Your task to perform on an android device: toggle priority inbox in the gmail app Image 0: 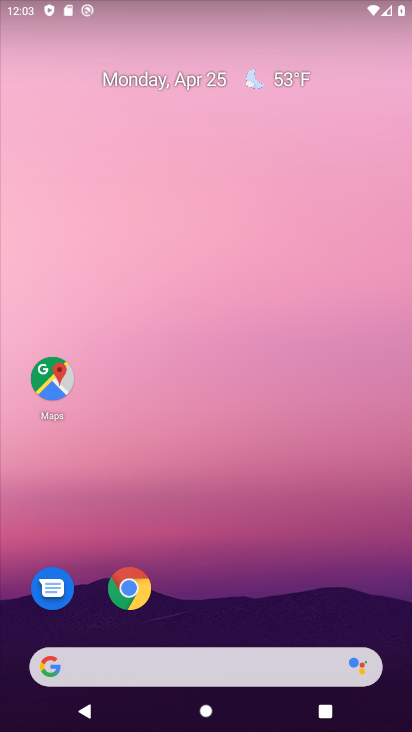
Step 0: drag from (209, 632) to (219, 161)
Your task to perform on an android device: toggle priority inbox in the gmail app Image 1: 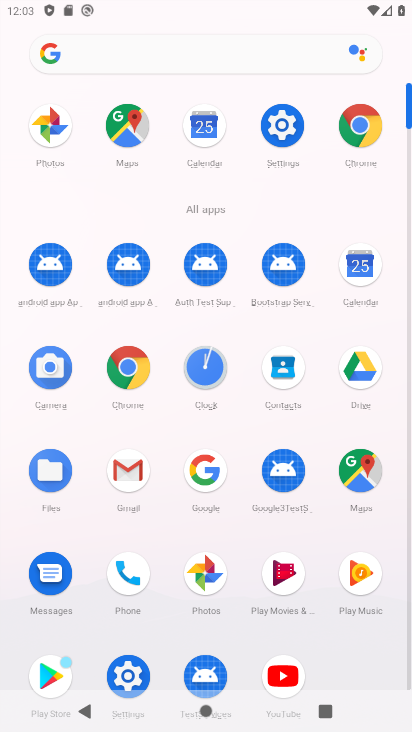
Step 1: click (124, 471)
Your task to perform on an android device: toggle priority inbox in the gmail app Image 2: 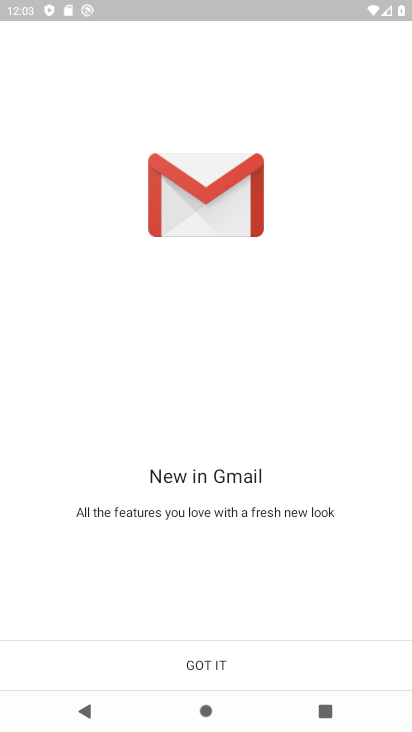
Step 2: click (194, 669)
Your task to perform on an android device: toggle priority inbox in the gmail app Image 3: 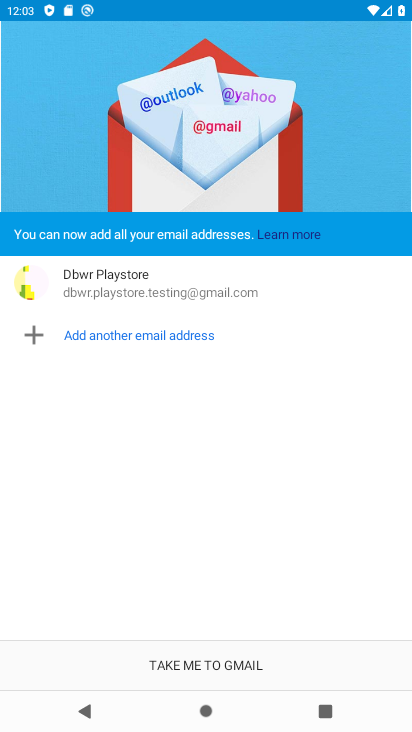
Step 3: click (194, 669)
Your task to perform on an android device: toggle priority inbox in the gmail app Image 4: 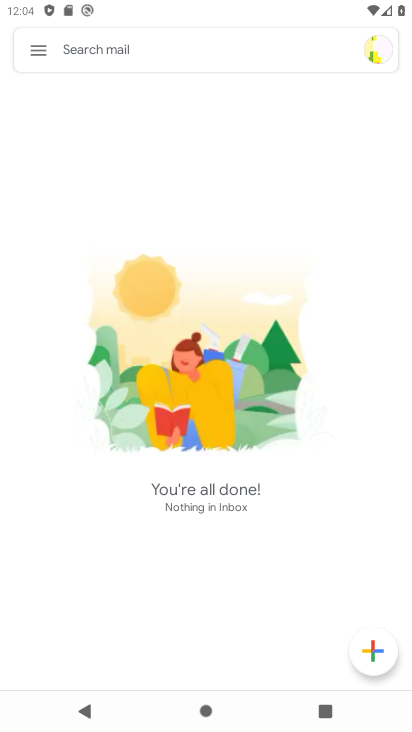
Step 4: click (41, 53)
Your task to perform on an android device: toggle priority inbox in the gmail app Image 5: 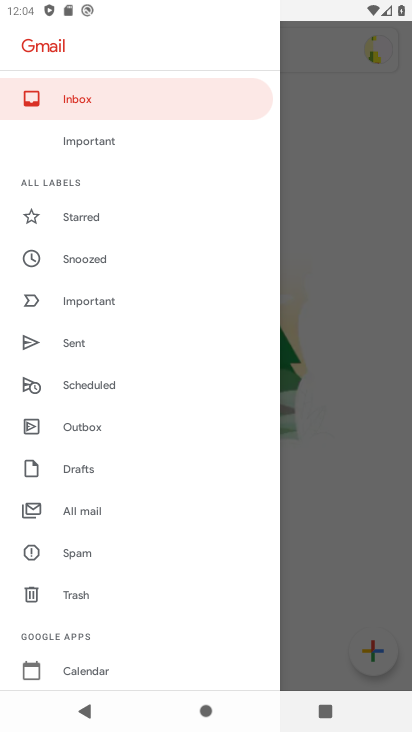
Step 5: drag from (139, 665) to (114, 267)
Your task to perform on an android device: toggle priority inbox in the gmail app Image 6: 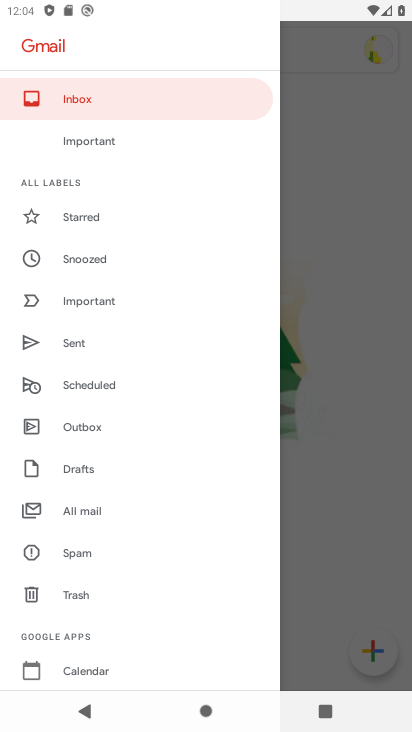
Step 6: drag from (233, 652) to (212, 323)
Your task to perform on an android device: toggle priority inbox in the gmail app Image 7: 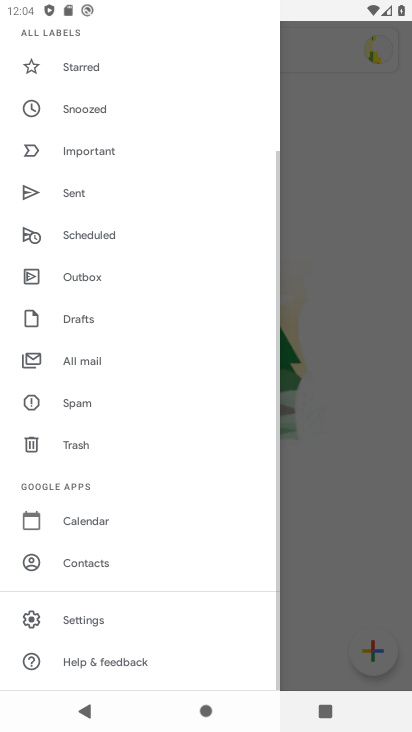
Step 7: click (194, 611)
Your task to perform on an android device: toggle priority inbox in the gmail app Image 8: 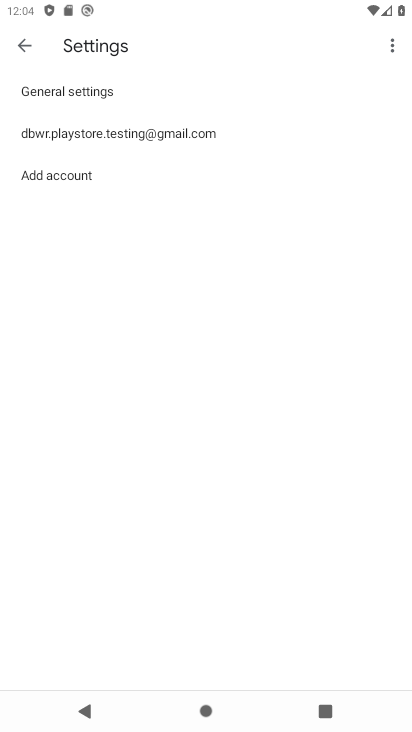
Step 8: click (272, 123)
Your task to perform on an android device: toggle priority inbox in the gmail app Image 9: 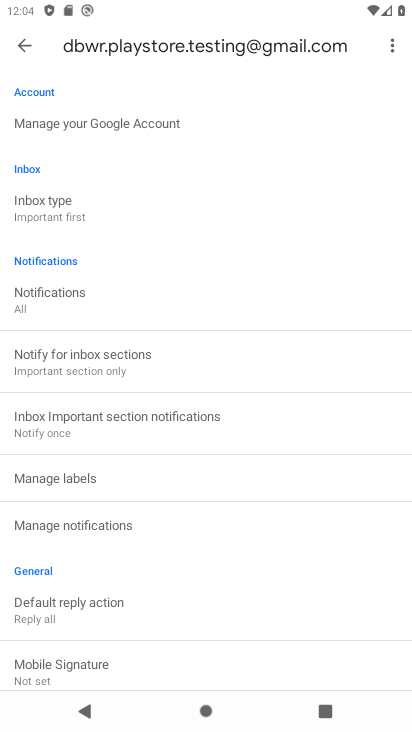
Step 9: click (257, 210)
Your task to perform on an android device: toggle priority inbox in the gmail app Image 10: 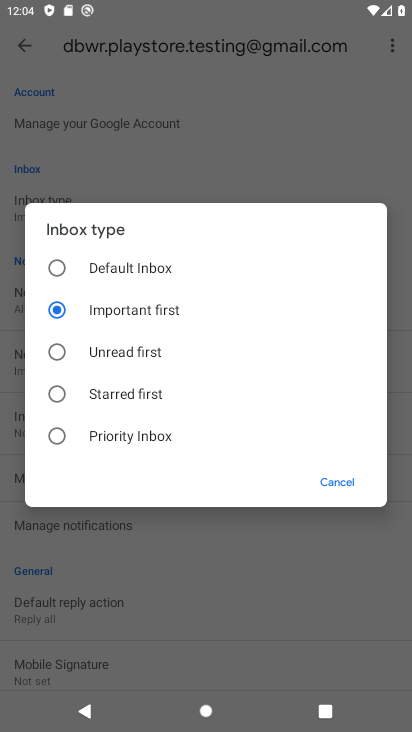
Step 10: click (192, 434)
Your task to perform on an android device: toggle priority inbox in the gmail app Image 11: 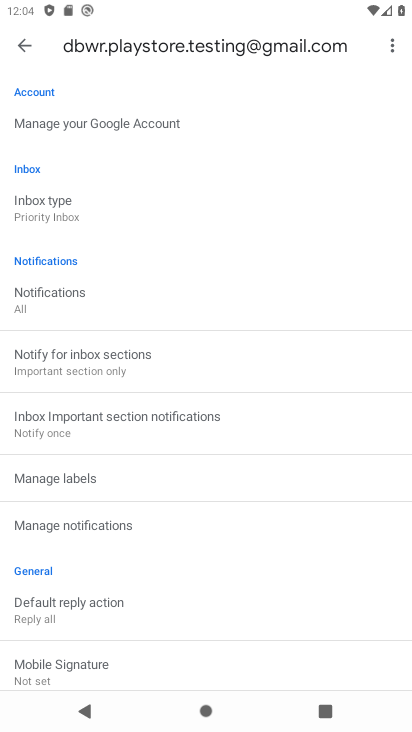
Step 11: task complete